Your task to perform on an android device: find snoozed emails in the gmail app Image 0: 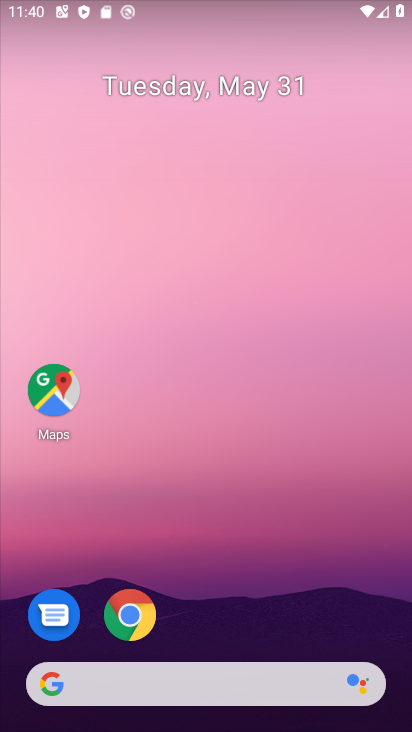
Step 0: task complete